Your task to perform on an android device: Is it going to rain this weekend? Image 0: 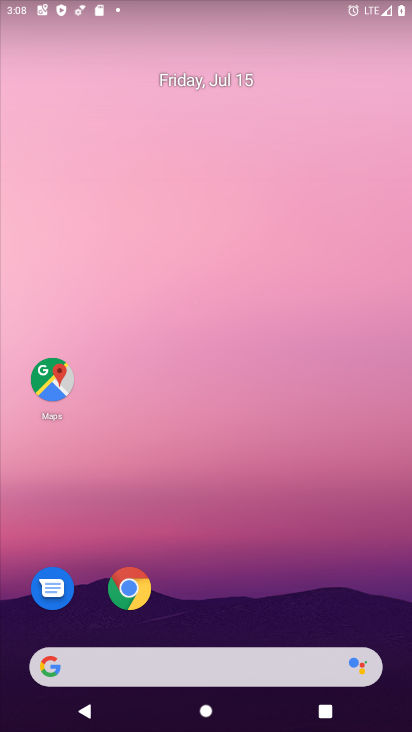
Step 0: drag from (214, 665) to (218, 33)
Your task to perform on an android device: Is it going to rain this weekend? Image 1: 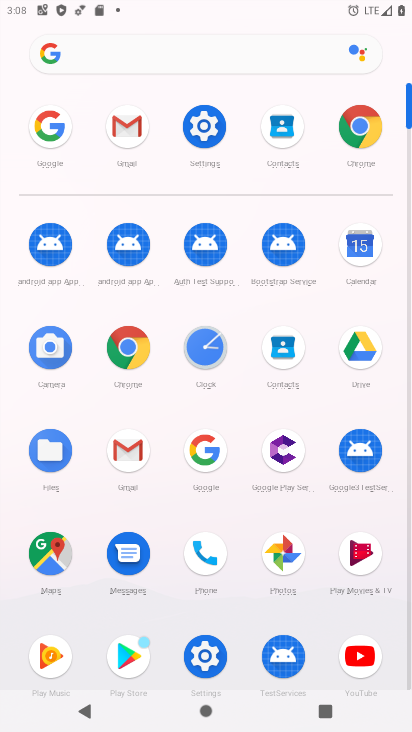
Step 1: click (202, 448)
Your task to perform on an android device: Is it going to rain this weekend? Image 2: 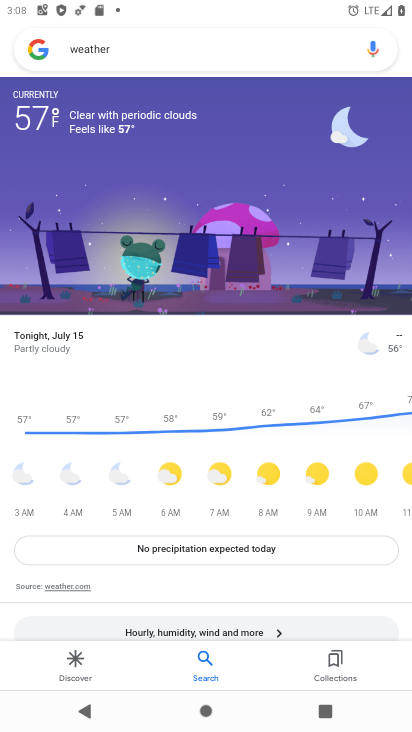
Step 2: drag from (246, 225) to (226, 361)
Your task to perform on an android device: Is it going to rain this weekend? Image 3: 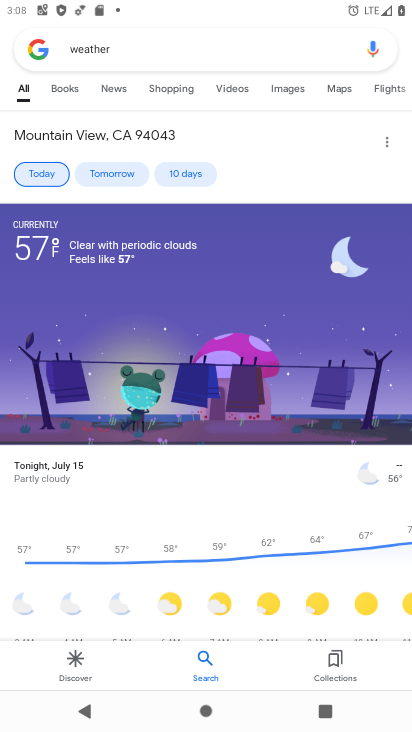
Step 3: click (183, 168)
Your task to perform on an android device: Is it going to rain this weekend? Image 4: 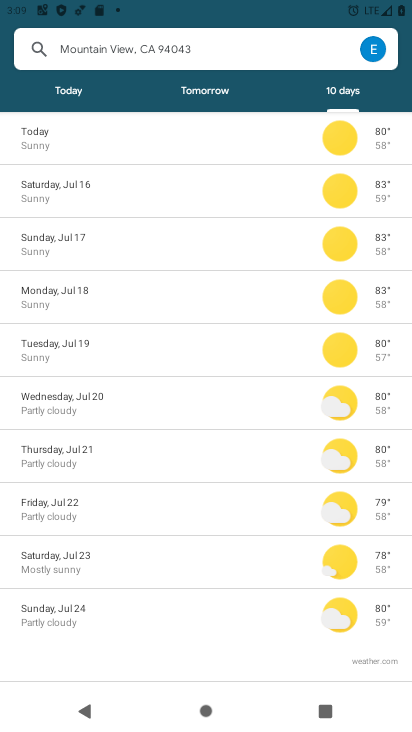
Step 4: task complete